Your task to perform on an android device: see creations saved in the google photos Image 0: 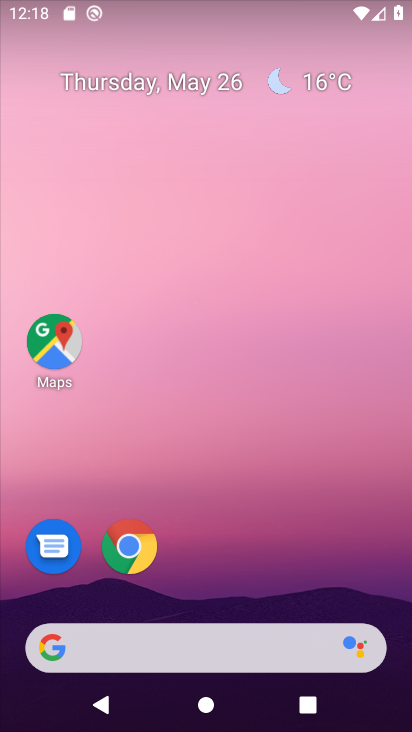
Step 0: drag from (169, 578) to (193, 244)
Your task to perform on an android device: see creations saved in the google photos Image 1: 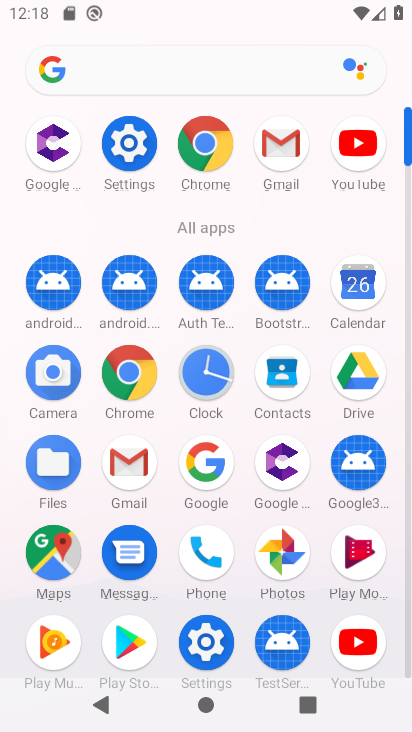
Step 1: click (282, 545)
Your task to perform on an android device: see creations saved in the google photos Image 2: 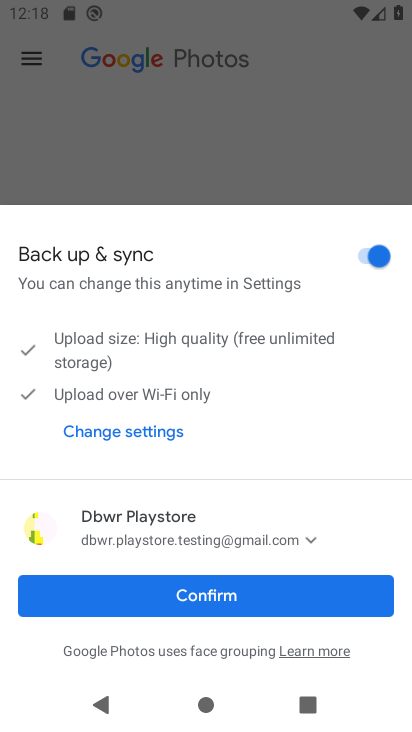
Step 2: click (202, 598)
Your task to perform on an android device: see creations saved in the google photos Image 3: 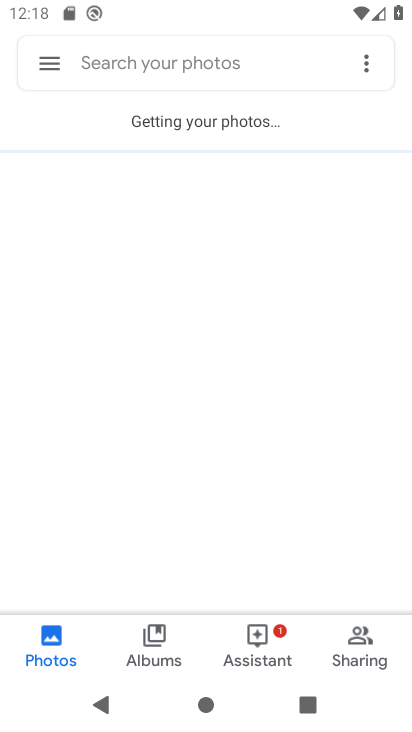
Step 3: click (108, 58)
Your task to perform on an android device: see creations saved in the google photos Image 4: 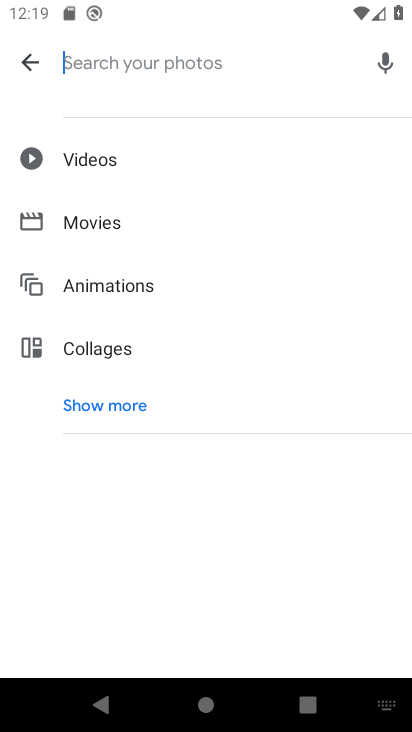
Step 4: type "creations"
Your task to perform on an android device: see creations saved in the google photos Image 5: 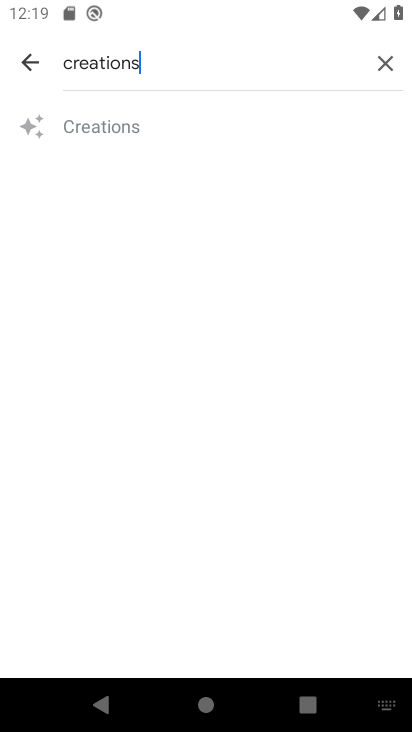
Step 5: click (85, 134)
Your task to perform on an android device: see creations saved in the google photos Image 6: 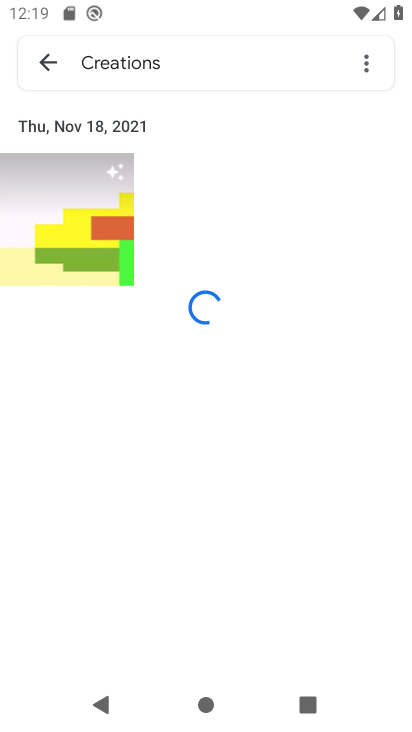
Step 6: task complete